Your task to perform on an android device: Go to Maps Image 0: 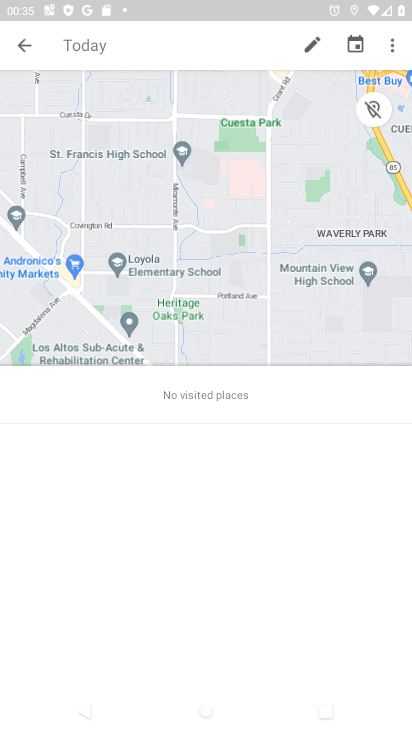
Step 0: press home button
Your task to perform on an android device: Go to Maps Image 1: 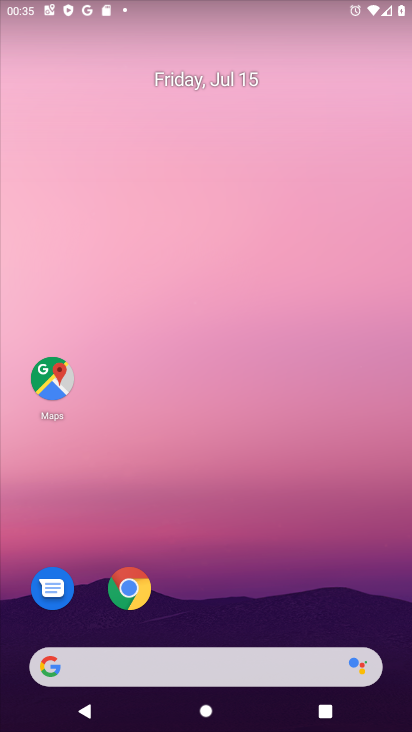
Step 1: click (64, 373)
Your task to perform on an android device: Go to Maps Image 2: 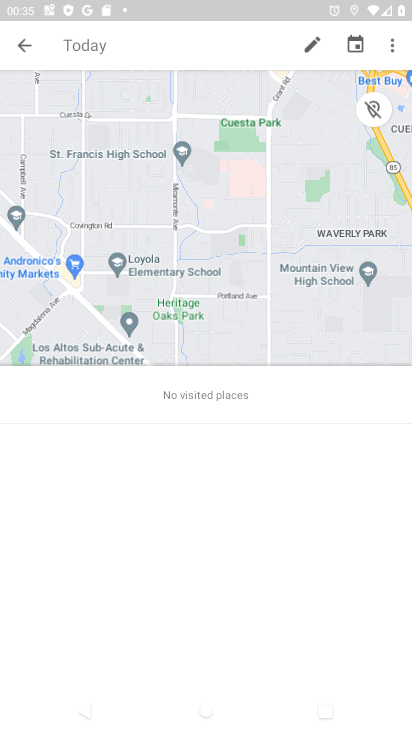
Step 2: click (28, 51)
Your task to perform on an android device: Go to Maps Image 3: 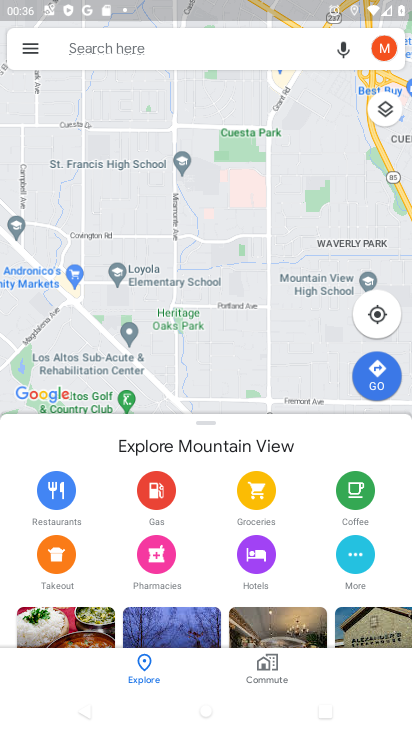
Step 3: task complete